Your task to perform on an android device: Open calendar and show me the second week of next month Image 0: 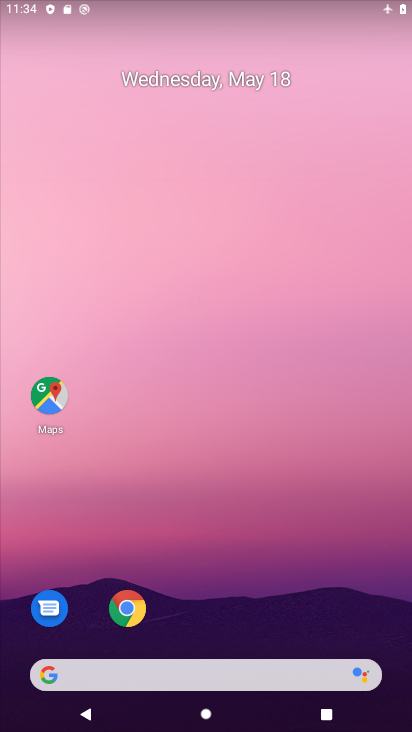
Step 0: drag from (328, 575) to (294, 84)
Your task to perform on an android device: Open calendar and show me the second week of next month Image 1: 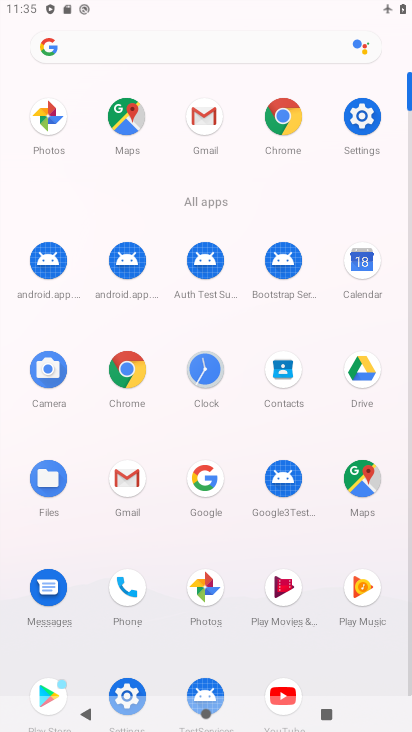
Step 1: click (366, 262)
Your task to perform on an android device: Open calendar and show me the second week of next month Image 2: 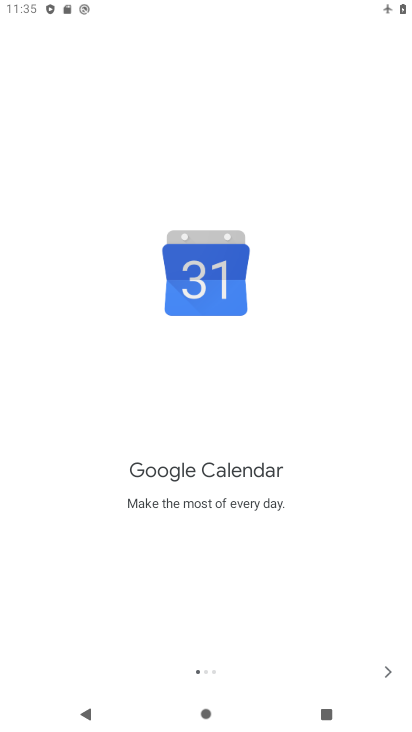
Step 2: click (383, 671)
Your task to perform on an android device: Open calendar and show me the second week of next month Image 3: 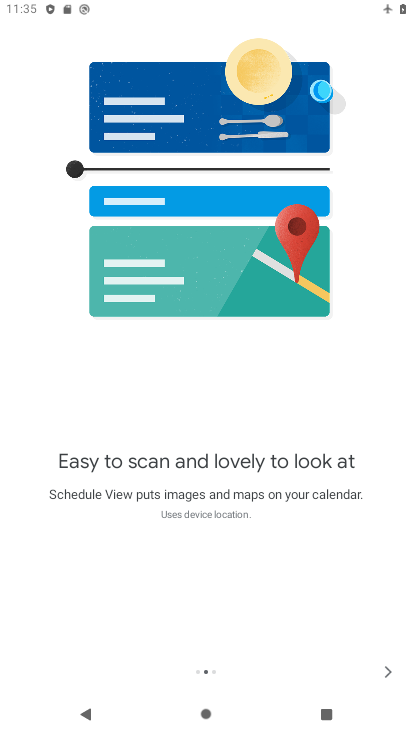
Step 3: click (383, 671)
Your task to perform on an android device: Open calendar and show me the second week of next month Image 4: 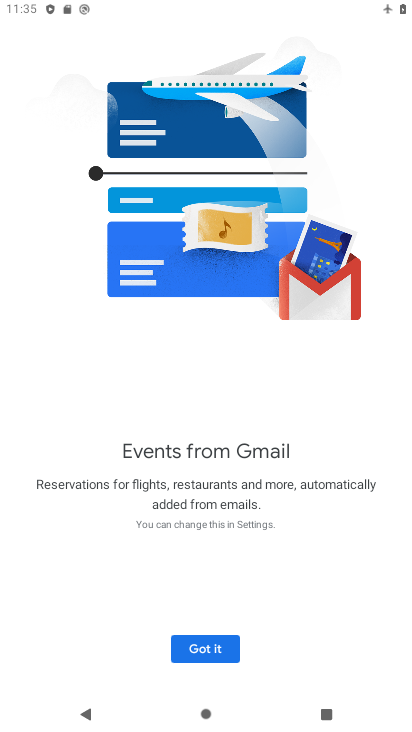
Step 4: click (207, 645)
Your task to perform on an android device: Open calendar and show me the second week of next month Image 5: 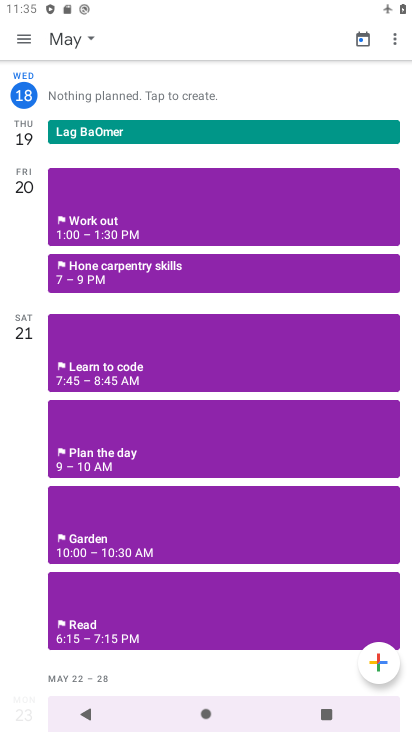
Step 5: click (72, 35)
Your task to perform on an android device: Open calendar and show me the second week of next month Image 6: 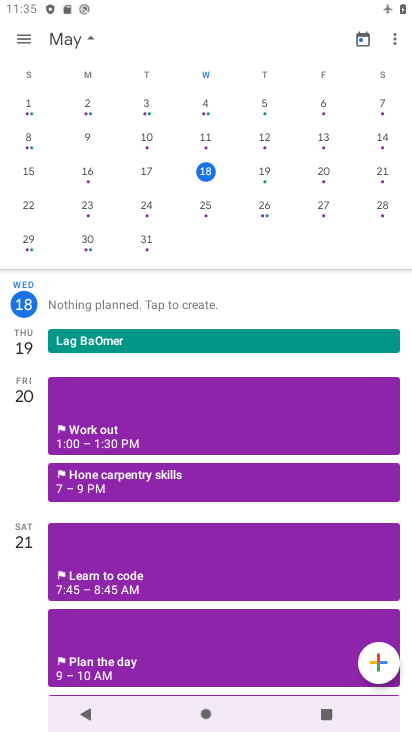
Step 6: drag from (329, 131) to (49, 133)
Your task to perform on an android device: Open calendar and show me the second week of next month Image 7: 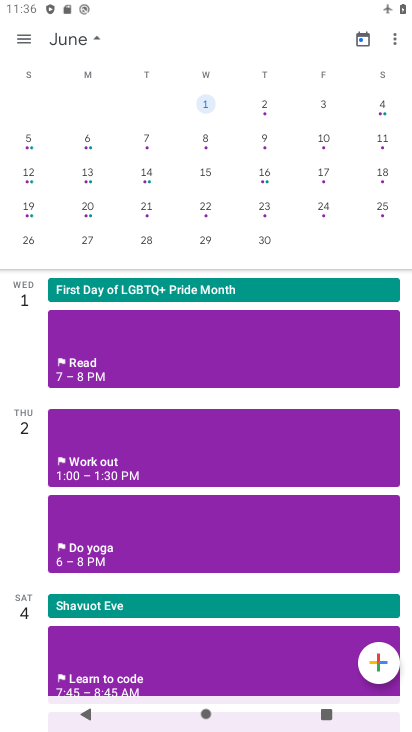
Step 7: click (24, 145)
Your task to perform on an android device: Open calendar and show me the second week of next month Image 8: 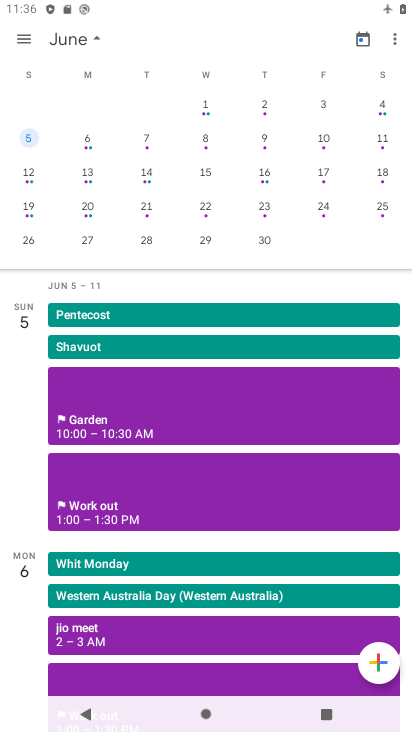
Step 8: task complete